Your task to perform on an android device: change the clock display to analog Image 0: 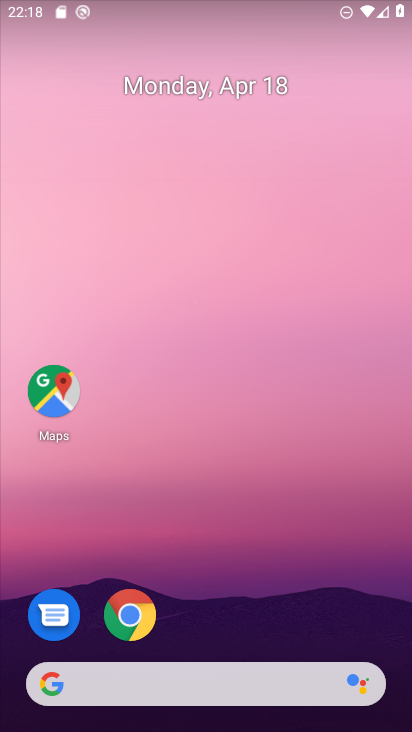
Step 0: drag from (323, 639) to (350, 6)
Your task to perform on an android device: change the clock display to analog Image 1: 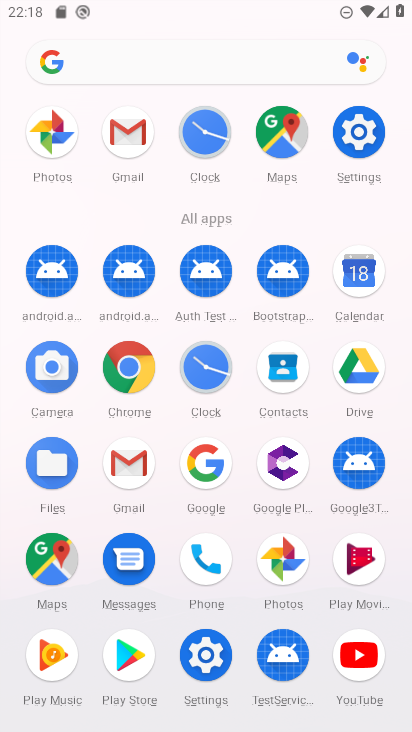
Step 1: click (201, 142)
Your task to perform on an android device: change the clock display to analog Image 2: 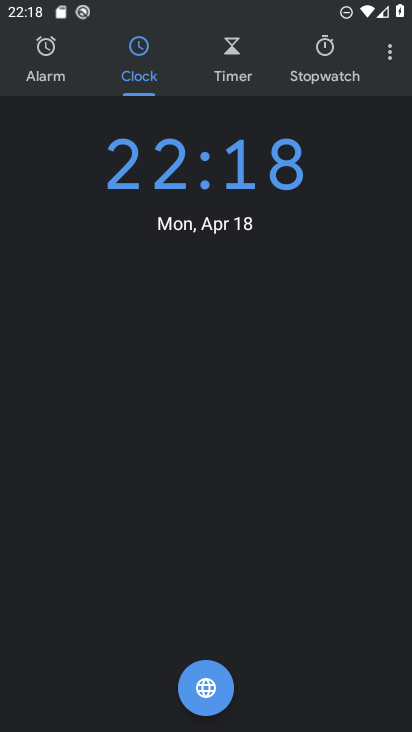
Step 2: click (387, 62)
Your task to perform on an android device: change the clock display to analog Image 3: 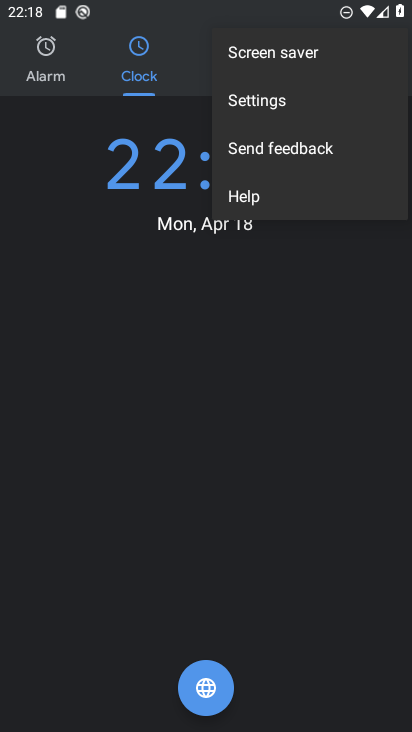
Step 3: click (288, 103)
Your task to perform on an android device: change the clock display to analog Image 4: 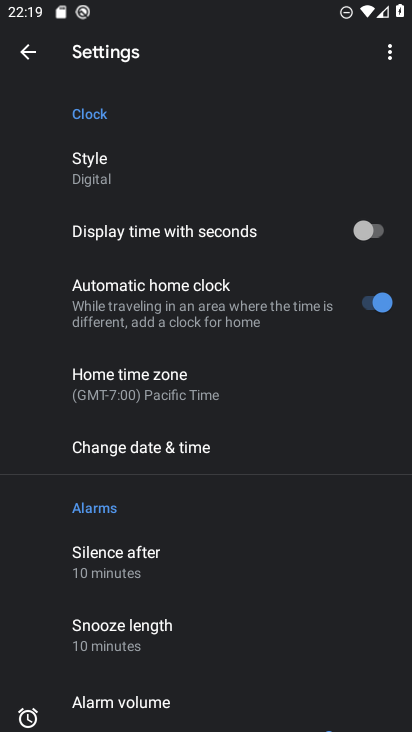
Step 4: click (104, 183)
Your task to perform on an android device: change the clock display to analog Image 5: 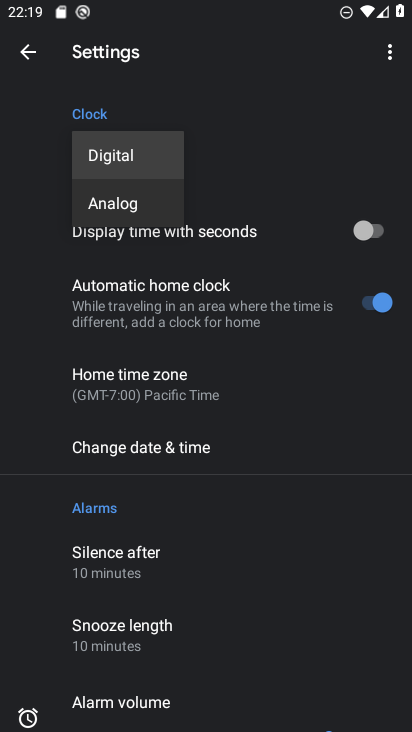
Step 5: click (113, 213)
Your task to perform on an android device: change the clock display to analog Image 6: 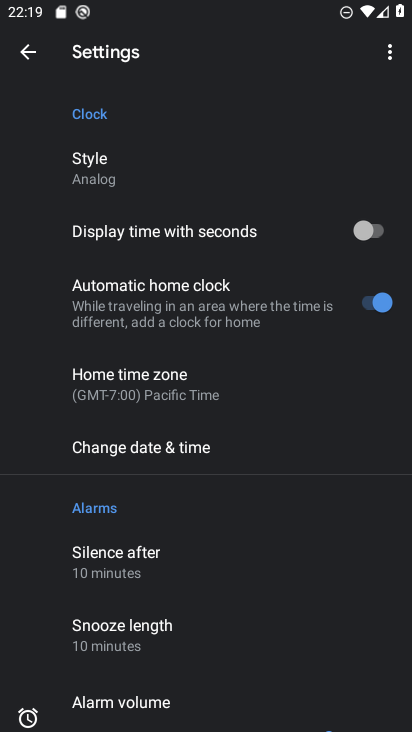
Step 6: task complete